Your task to perform on an android device: Is it going to rain this weekend? Image 0: 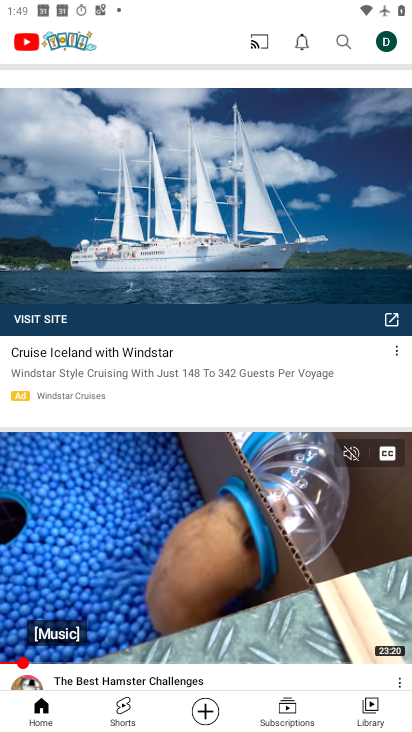
Step 0: press home button
Your task to perform on an android device: Is it going to rain this weekend? Image 1: 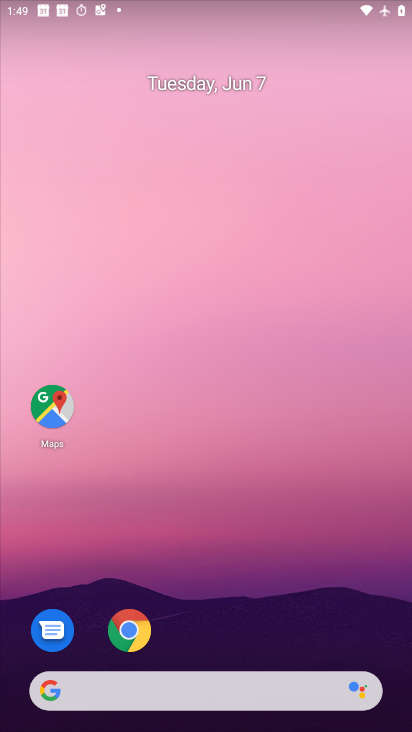
Step 1: drag from (378, 633) to (286, 56)
Your task to perform on an android device: Is it going to rain this weekend? Image 2: 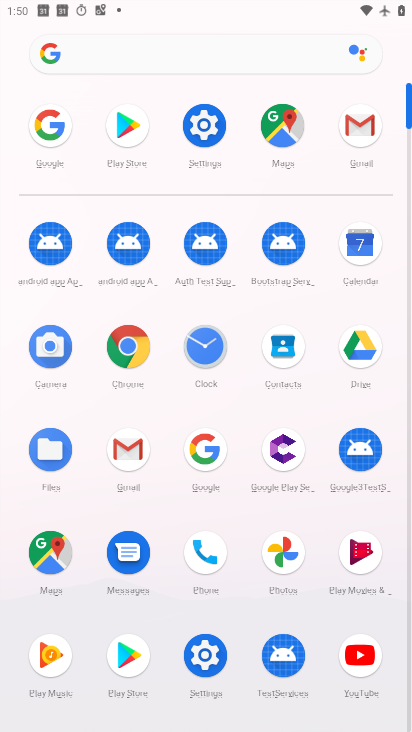
Step 2: click (199, 458)
Your task to perform on an android device: Is it going to rain this weekend? Image 3: 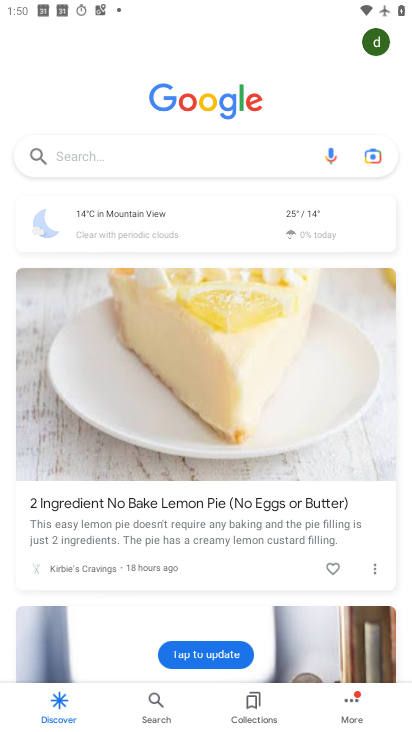
Step 3: click (139, 151)
Your task to perform on an android device: Is it going to rain this weekend? Image 4: 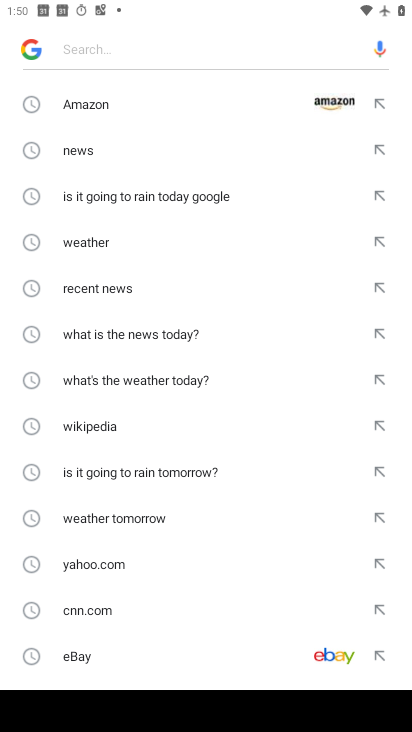
Step 4: drag from (142, 609) to (165, 182)
Your task to perform on an android device: Is it going to rain this weekend? Image 5: 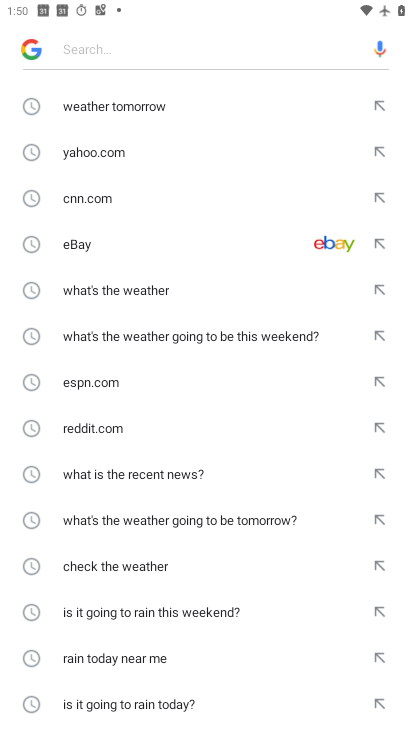
Step 5: drag from (207, 658) to (259, 177)
Your task to perform on an android device: Is it going to rain this weekend? Image 6: 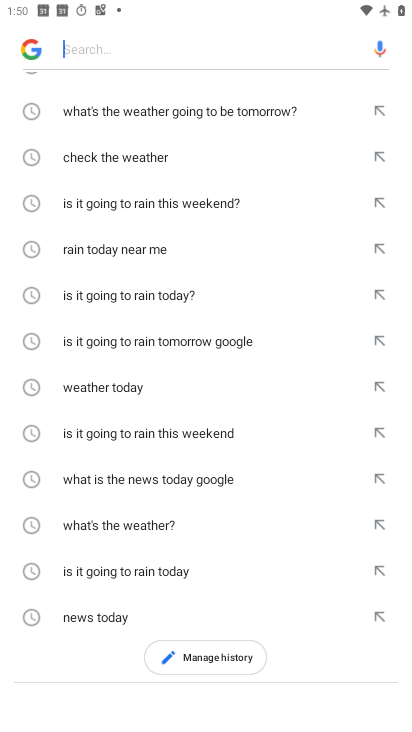
Step 6: click (214, 436)
Your task to perform on an android device: Is it going to rain this weekend? Image 7: 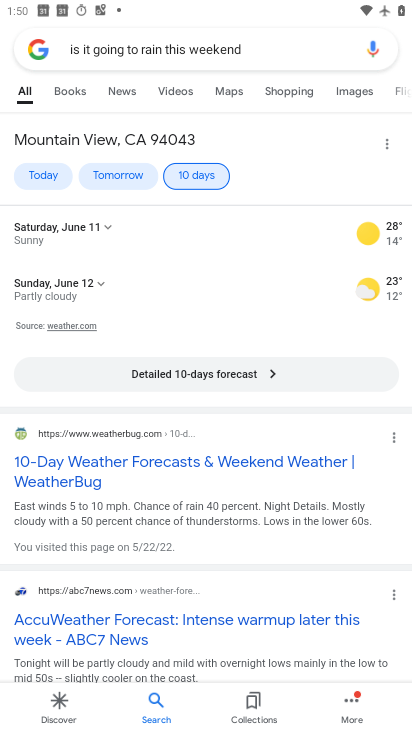
Step 7: task complete